Your task to perform on an android device: Show the shopping cart on target.com. Search for "bose quietcomfort 35" on target.com, select the first entry, and add it to the cart. Image 0: 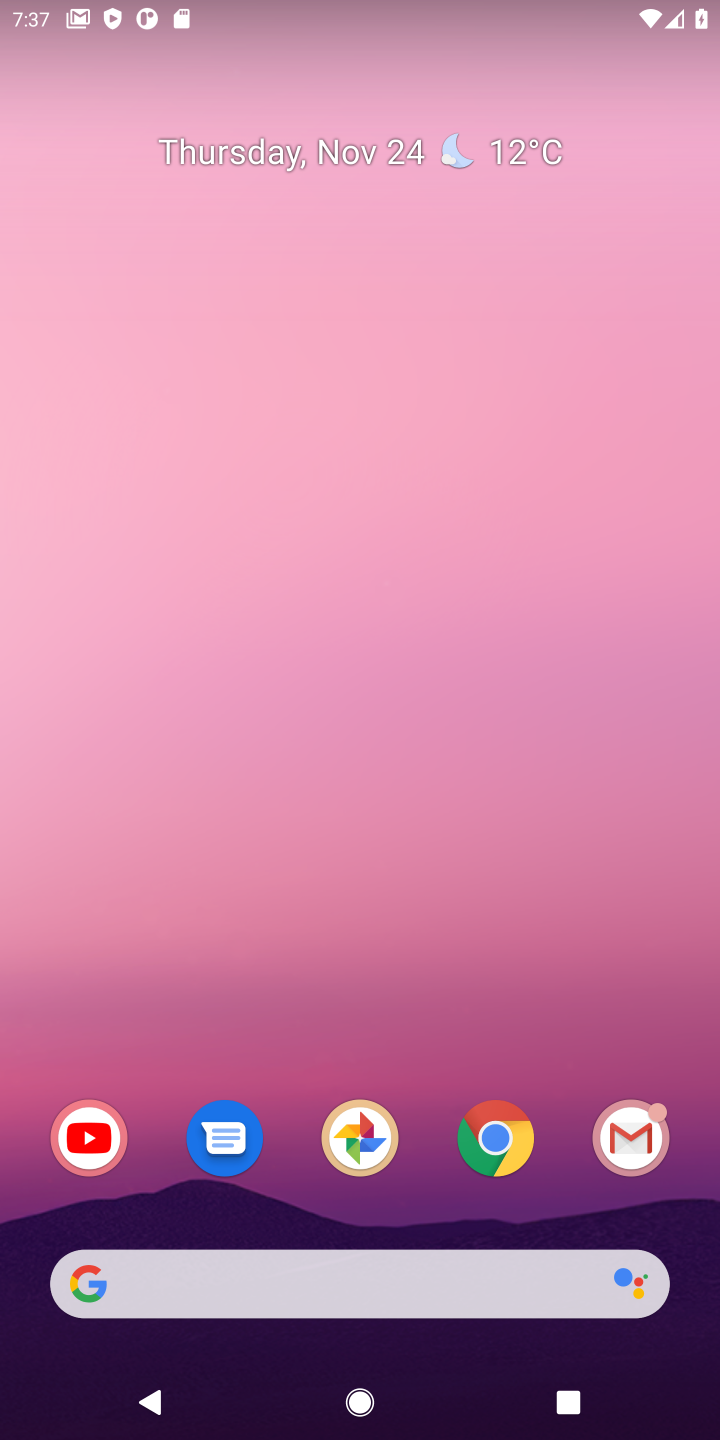
Step 0: click (462, 1123)
Your task to perform on an android device: Show the shopping cart on target.com. Search for "bose quietcomfort 35" on target.com, select the first entry, and add it to the cart. Image 1: 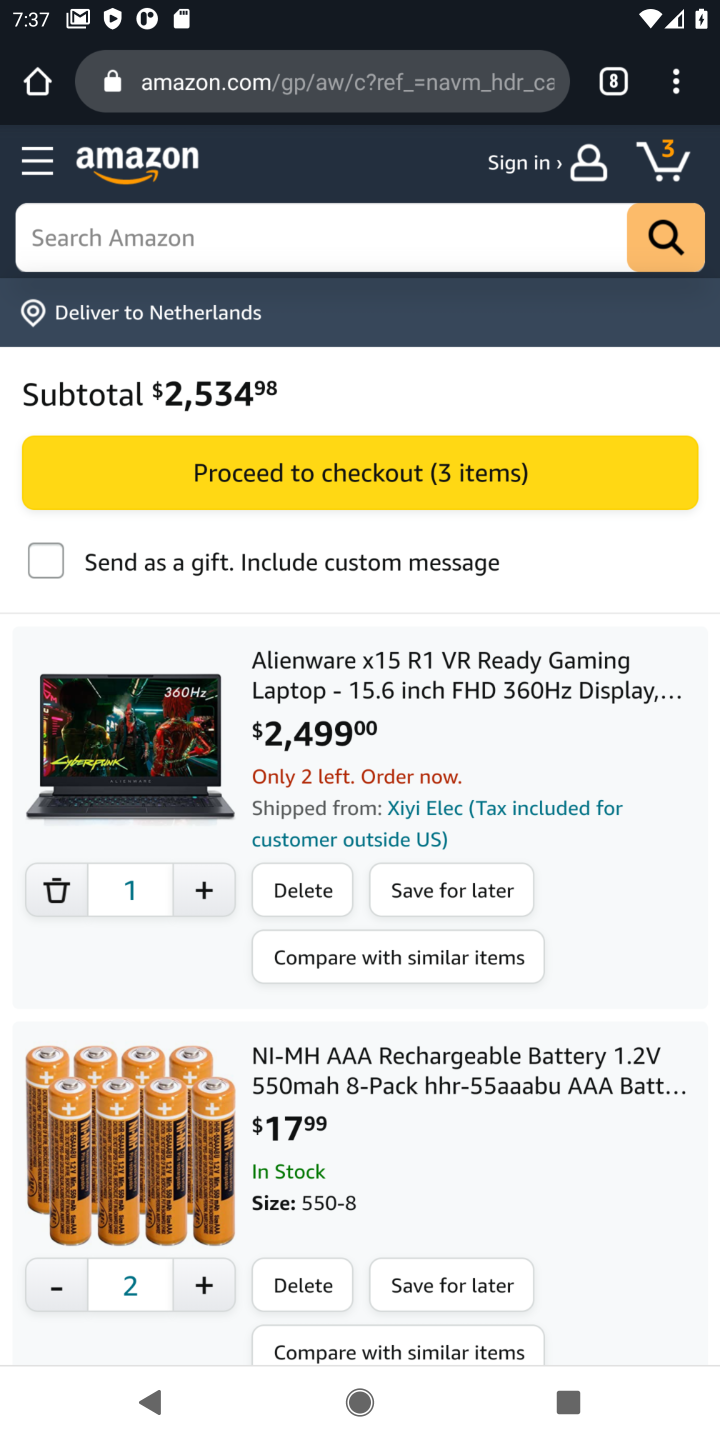
Step 1: click (495, 1145)
Your task to perform on an android device: Show the shopping cart on target.com. Search for "bose quietcomfort 35" on target.com, select the first entry, and add it to the cart. Image 2: 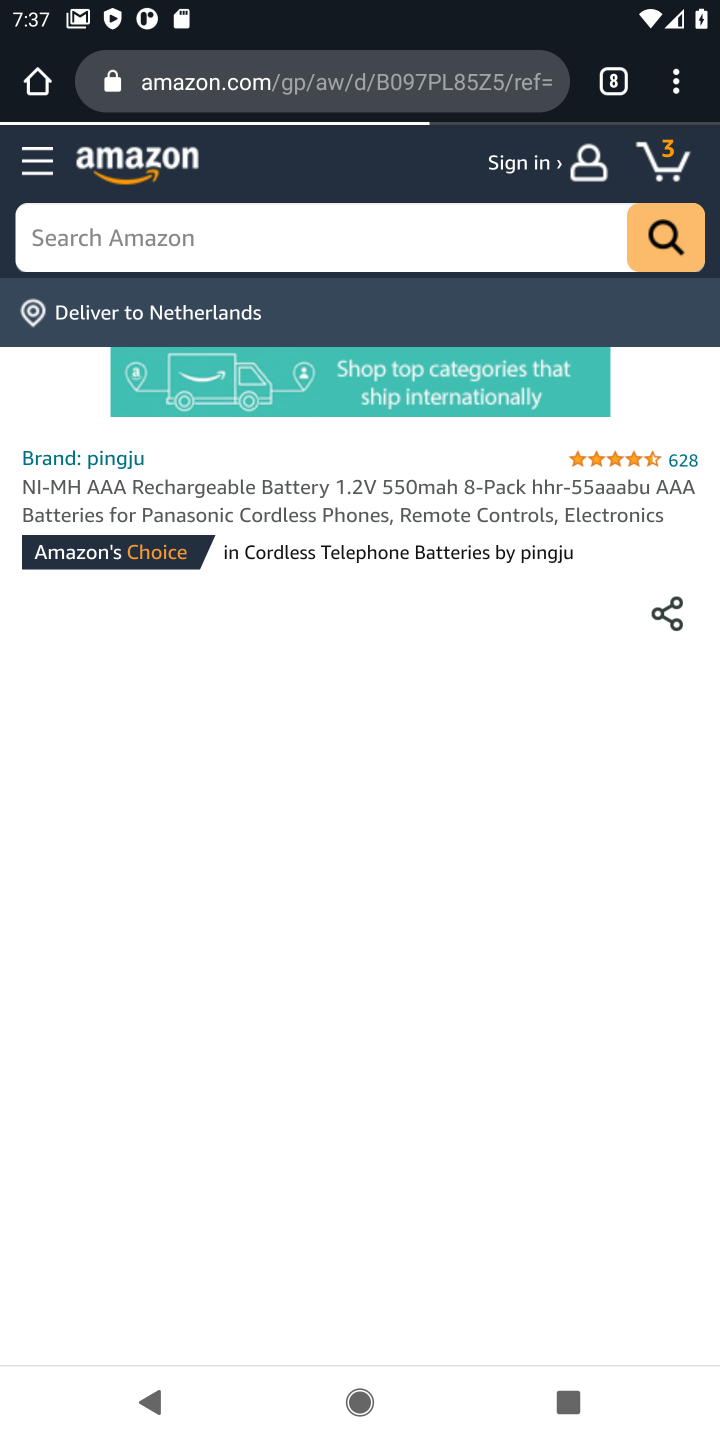
Step 2: click (628, 88)
Your task to perform on an android device: Show the shopping cart on target.com. Search for "bose quietcomfort 35" on target.com, select the first entry, and add it to the cart. Image 3: 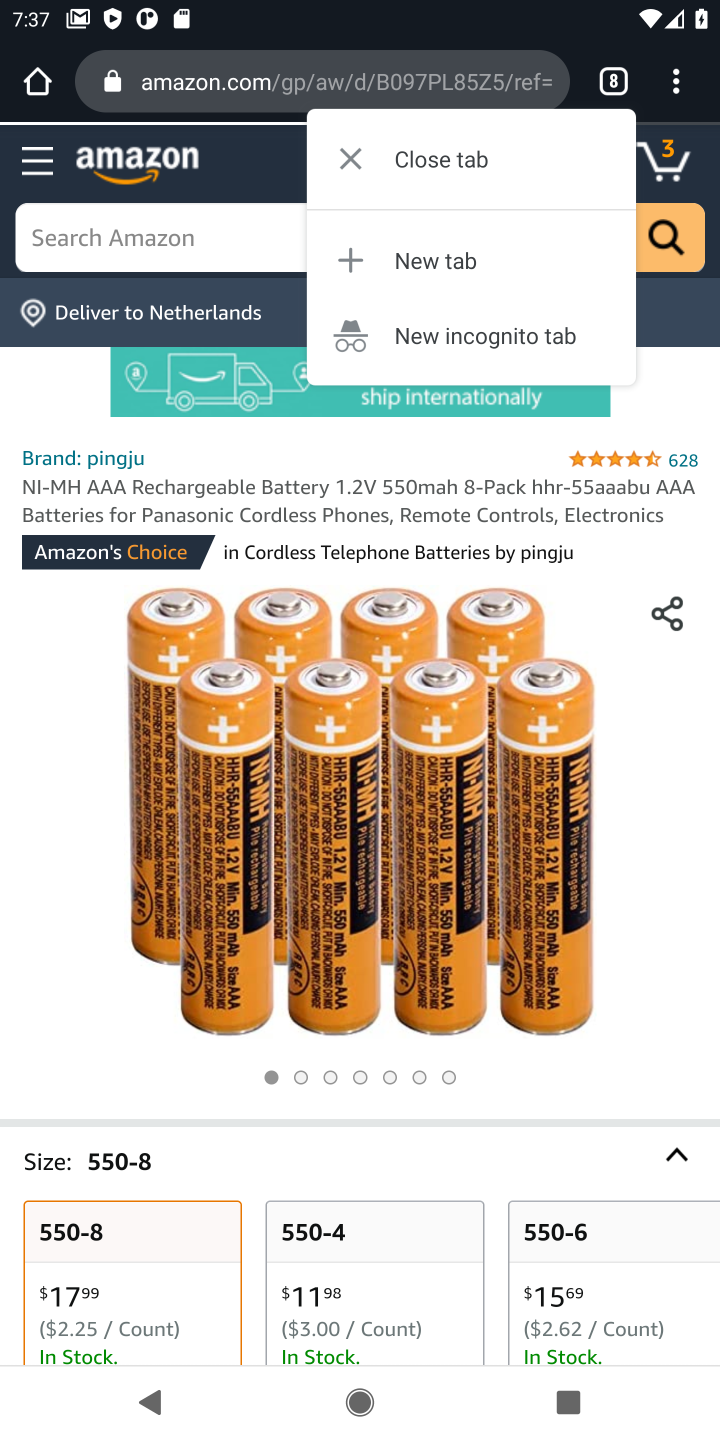
Step 3: click (609, 71)
Your task to perform on an android device: Show the shopping cart on target.com. Search for "bose quietcomfort 35" on target.com, select the first entry, and add it to the cart. Image 4: 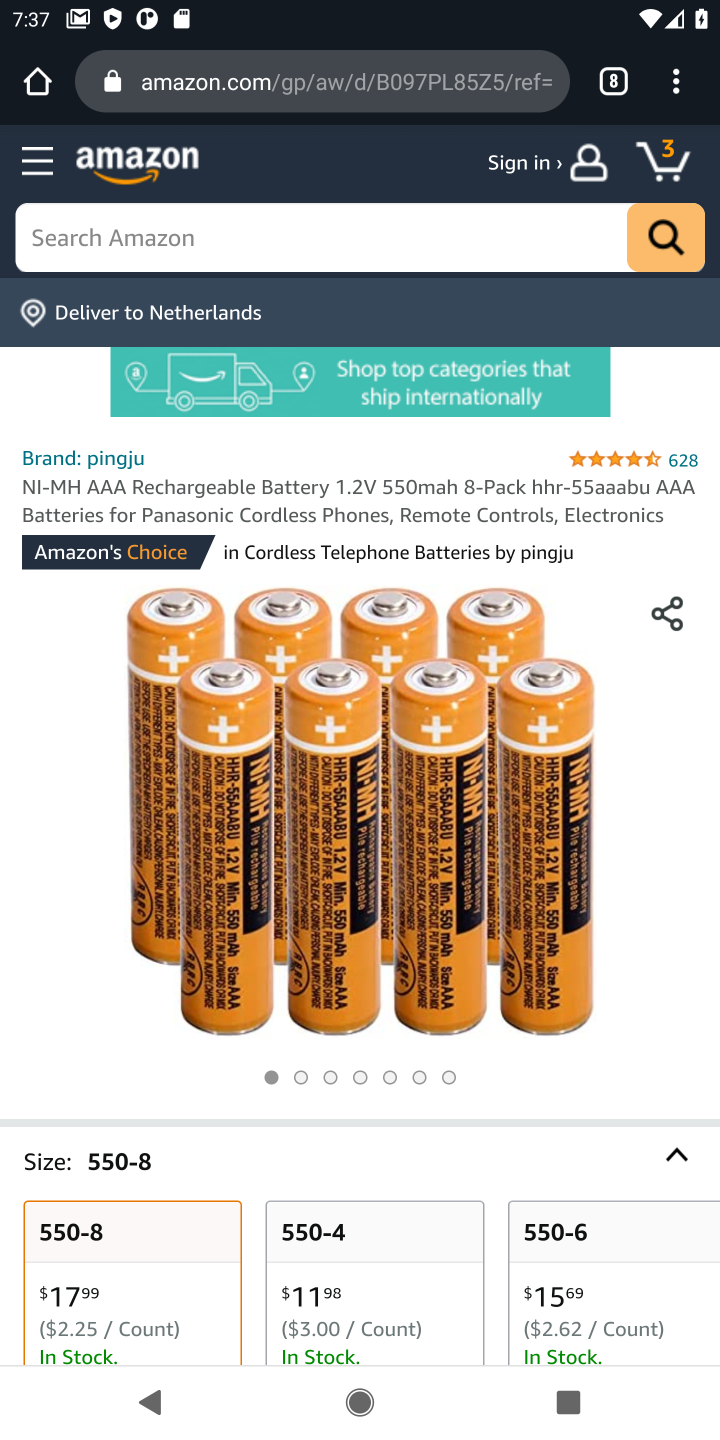
Step 4: click (609, 71)
Your task to perform on an android device: Show the shopping cart on target.com. Search for "bose quietcomfort 35" on target.com, select the first entry, and add it to the cart. Image 5: 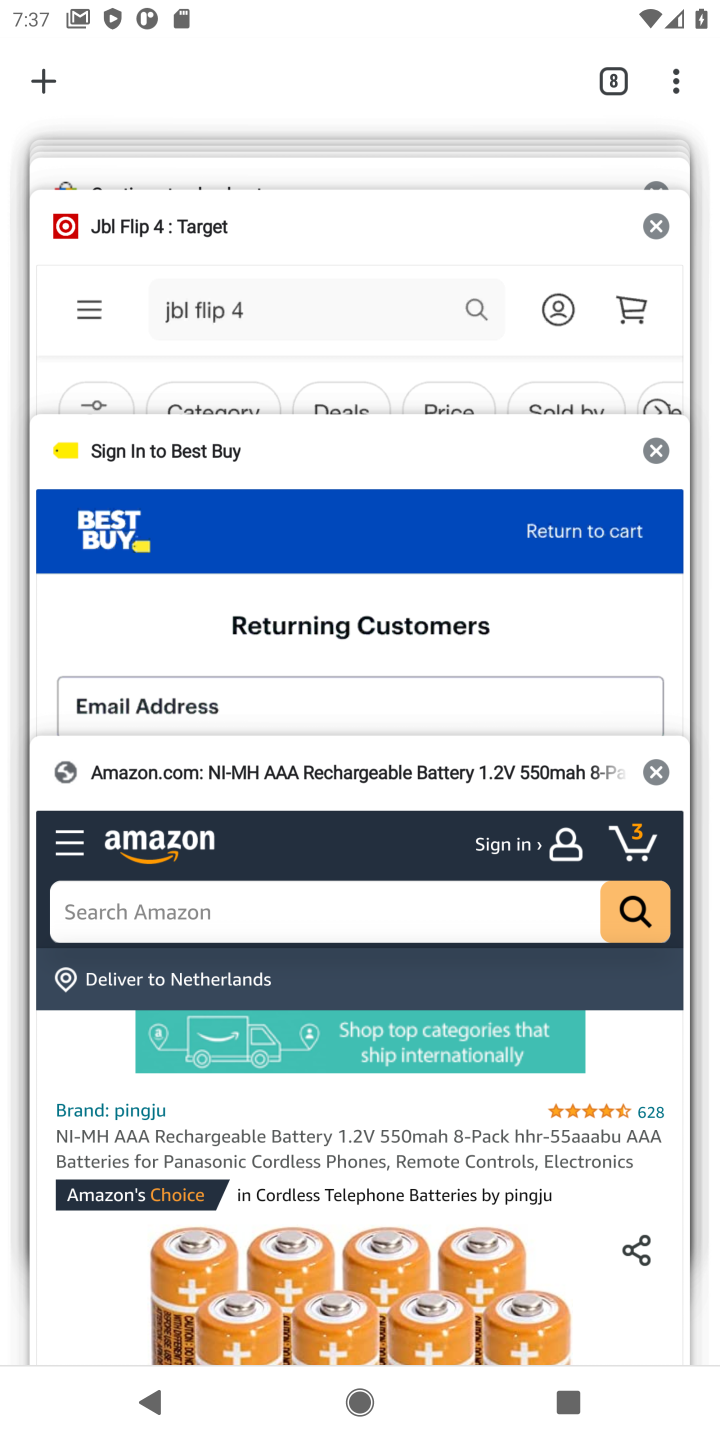
Step 5: click (32, 75)
Your task to perform on an android device: Show the shopping cart on target.com. Search for "bose quietcomfort 35" on target.com, select the first entry, and add it to the cart. Image 6: 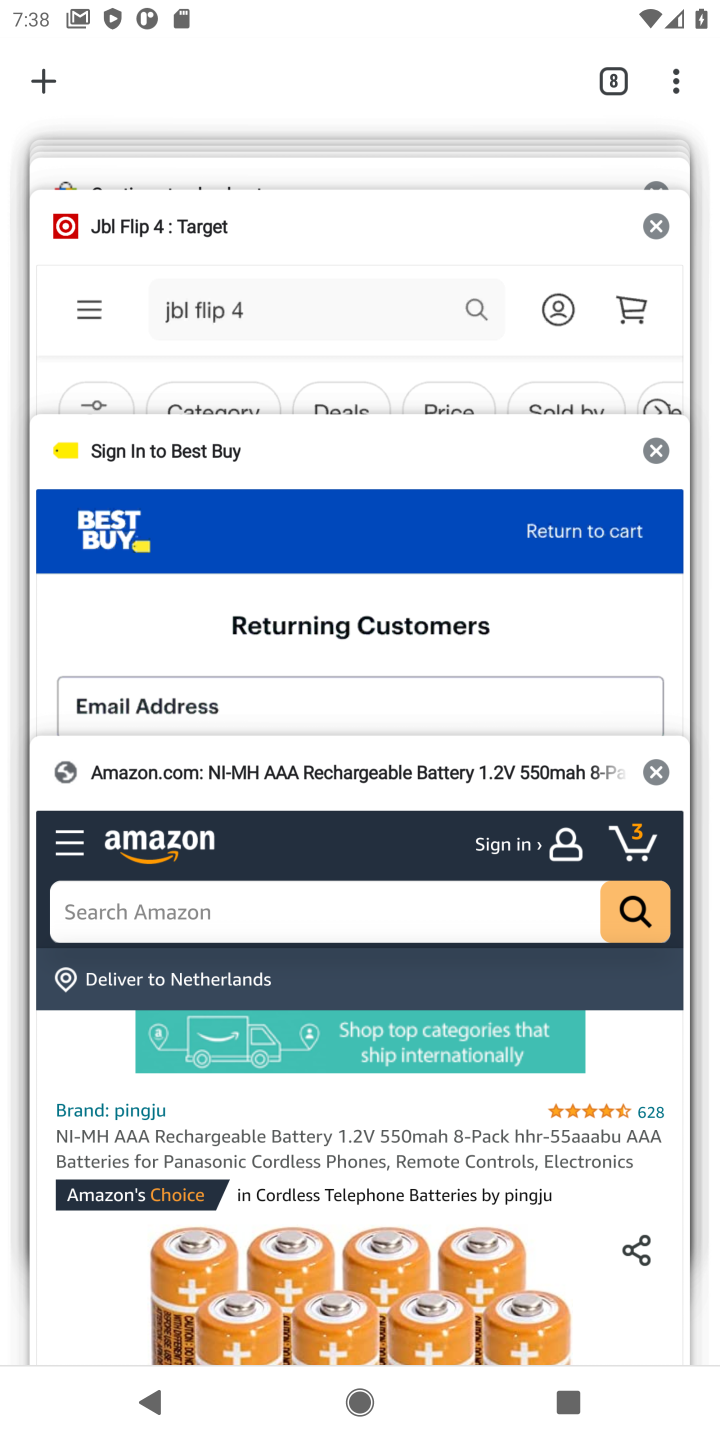
Step 6: click (352, 237)
Your task to perform on an android device: Show the shopping cart on target.com. Search for "bose quietcomfort 35" on target.com, select the first entry, and add it to the cart. Image 7: 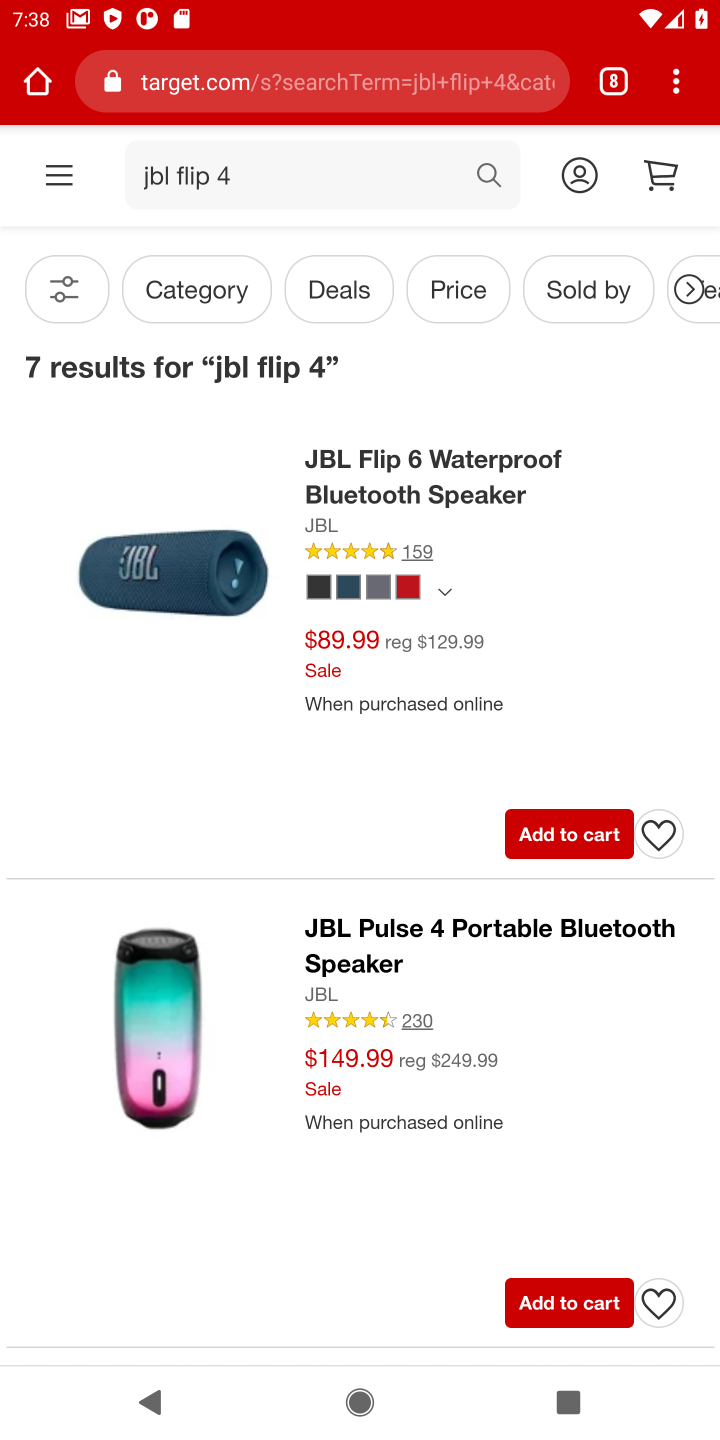
Step 7: click (361, 174)
Your task to perform on an android device: Show the shopping cart on target.com. Search for "bose quietcomfort 35" on target.com, select the first entry, and add it to the cart. Image 8: 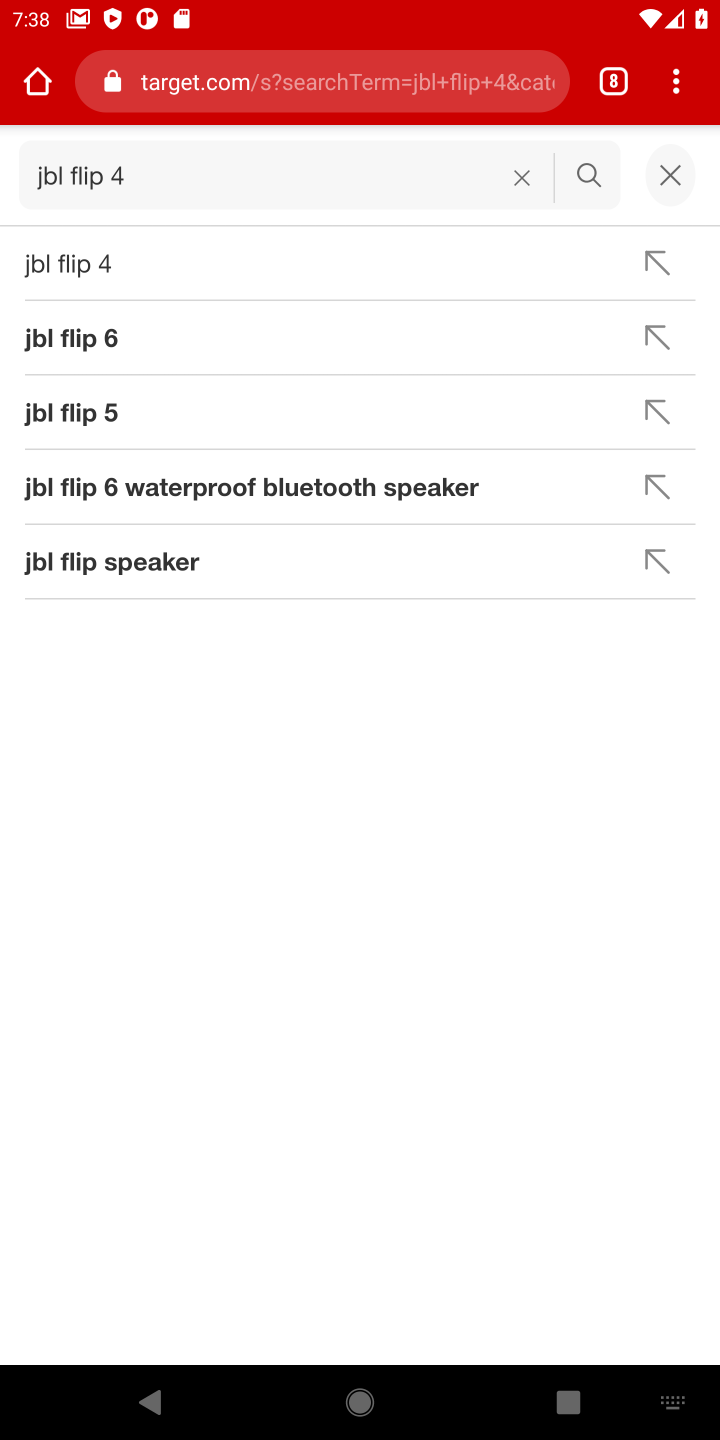
Step 8: click (513, 175)
Your task to perform on an android device: Show the shopping cart on target.com. Search for "bose quietcomfort 35" on target.com, select the first entry, and add it to the cart. Image 9: 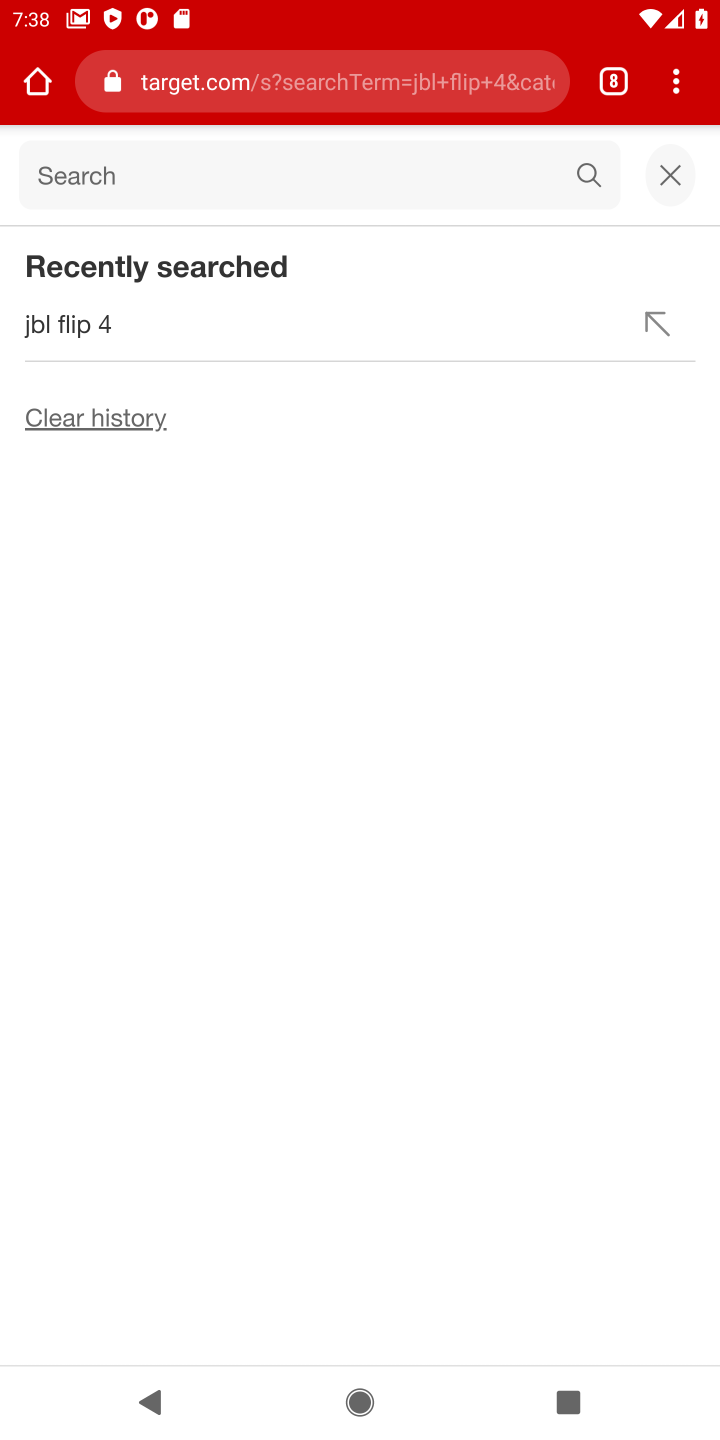
Step 9: click (246, 170)
Your task to perform on an android device: Show the shopping cart on target.com. Search for "bose quietcomfort 35" on target.com, select the first entry, and add it to the cart. Image 10: 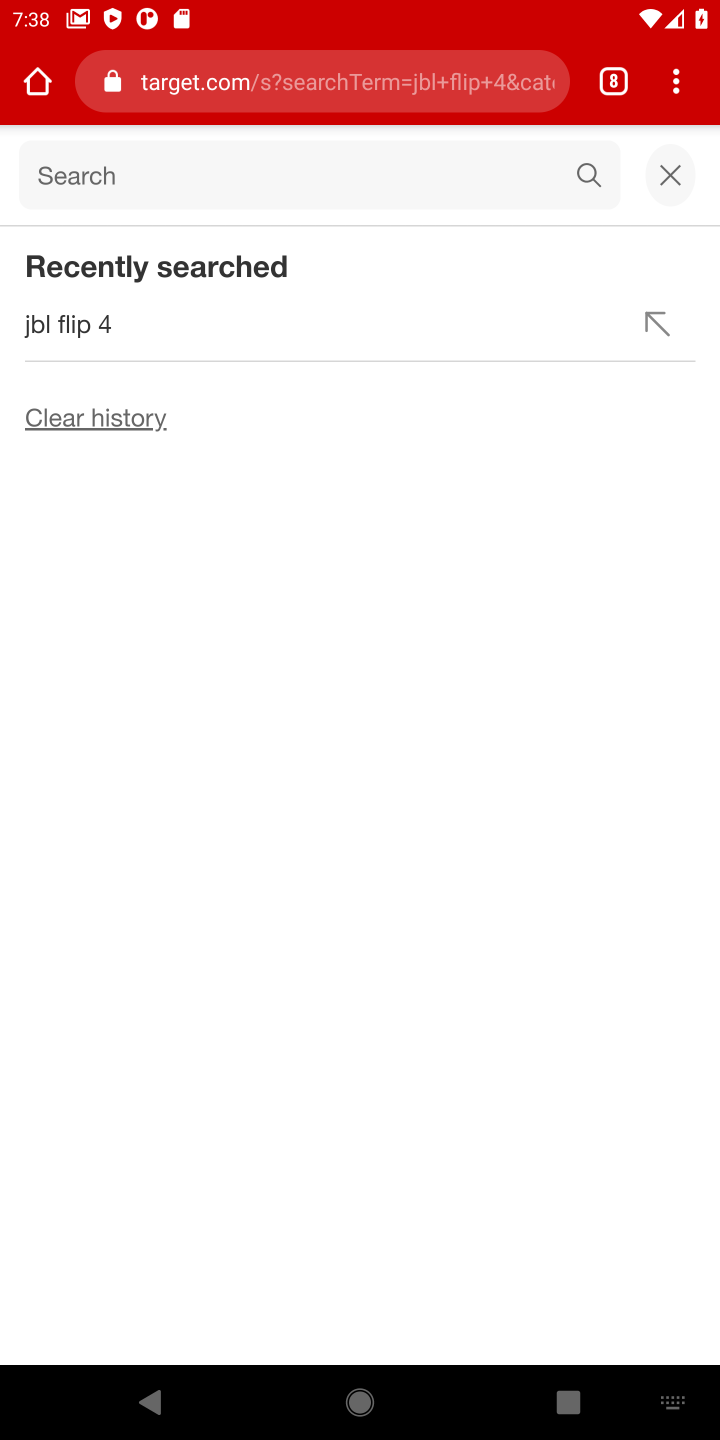
Step 10: type "bose quietcomfort 35"
Your task to perform on an android device: Show the shopping cart on target.com. Search for "bose quietcomfort 35" on target.com, select the first entry, and add it to the cart. Image 11: 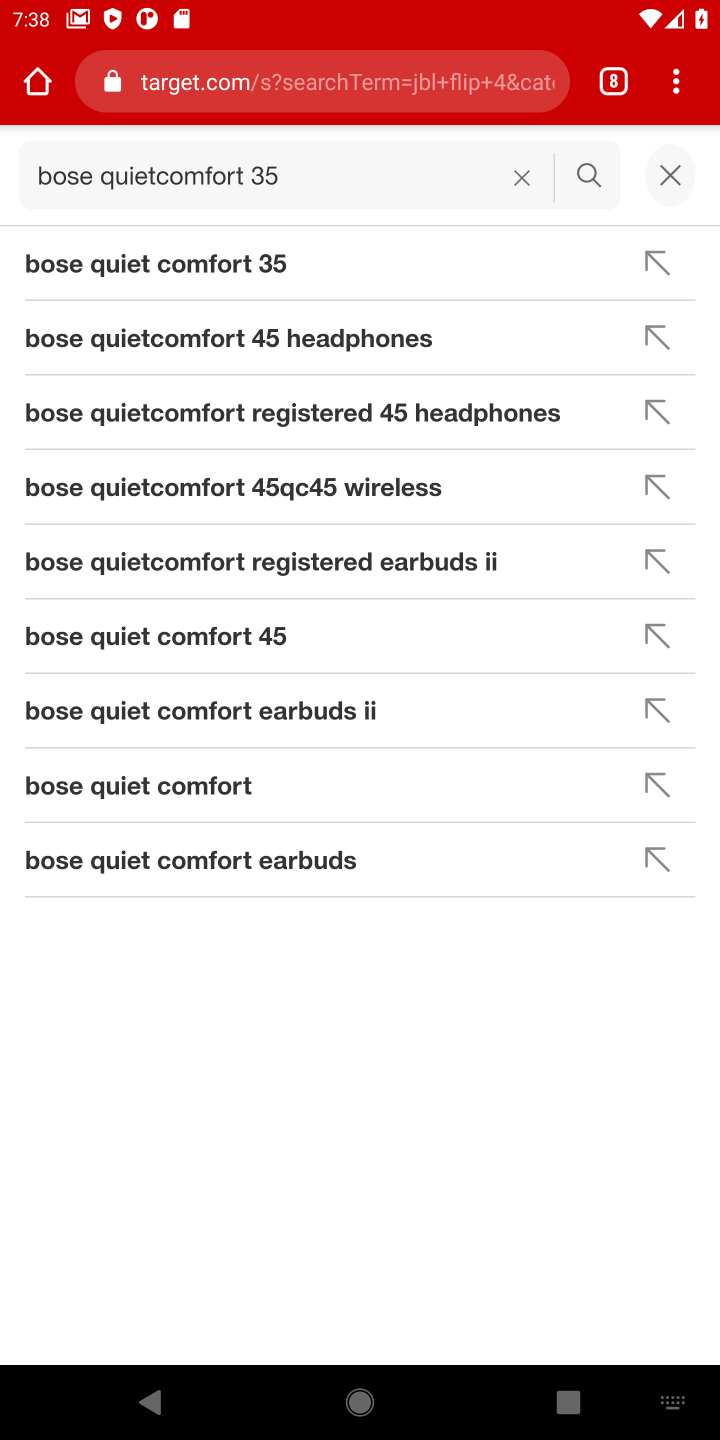
Step 11: click (208, 271)
Your task to perform on an android device: Show the shopping cart on target.com. Search for "bose quietcomfort 35" on target.com, select the first entry, and add it to the cart. Image 12: 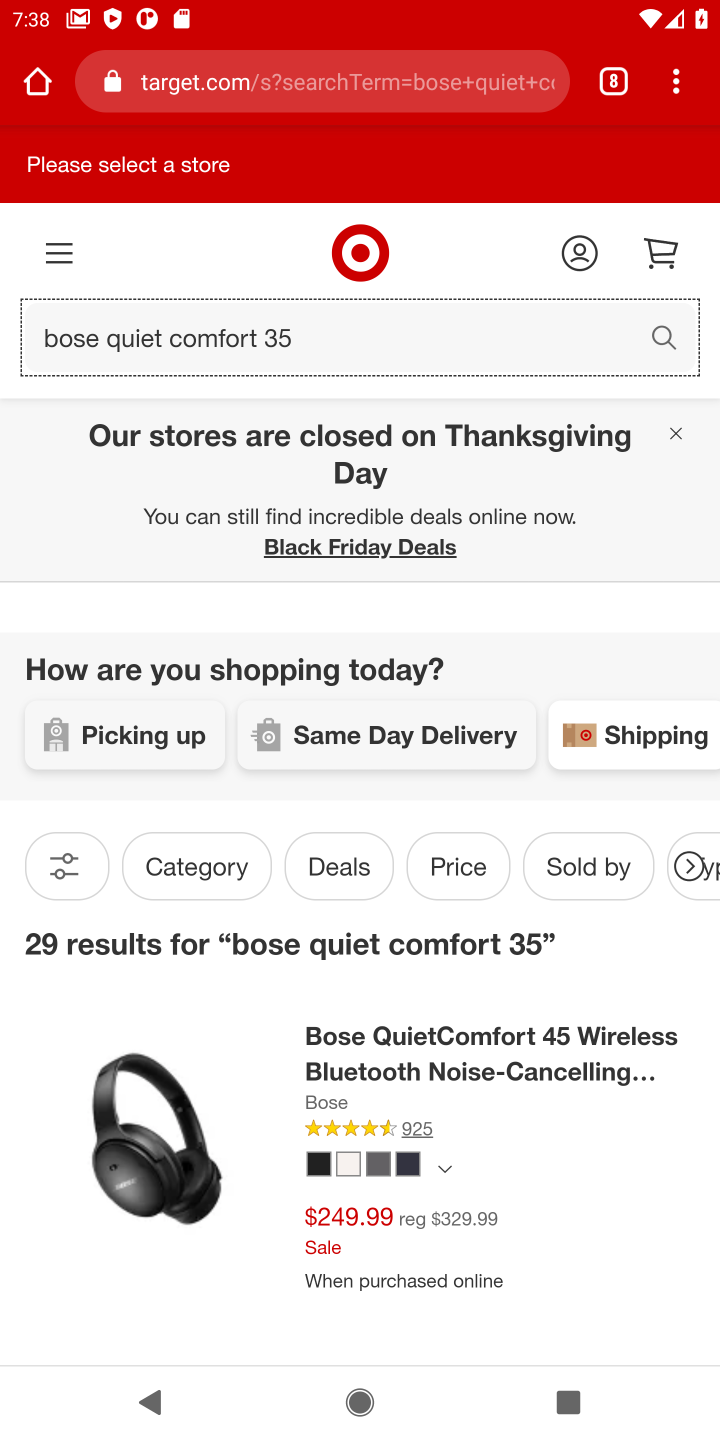
Step 12: drag from (395, 1055) to (461, 583)
Your task to perform on an android device: Show the shopping cart on target.com. Search for "bose quietcomfort 35" on target.com, select the first entry, and add it to the cart. Image 13: 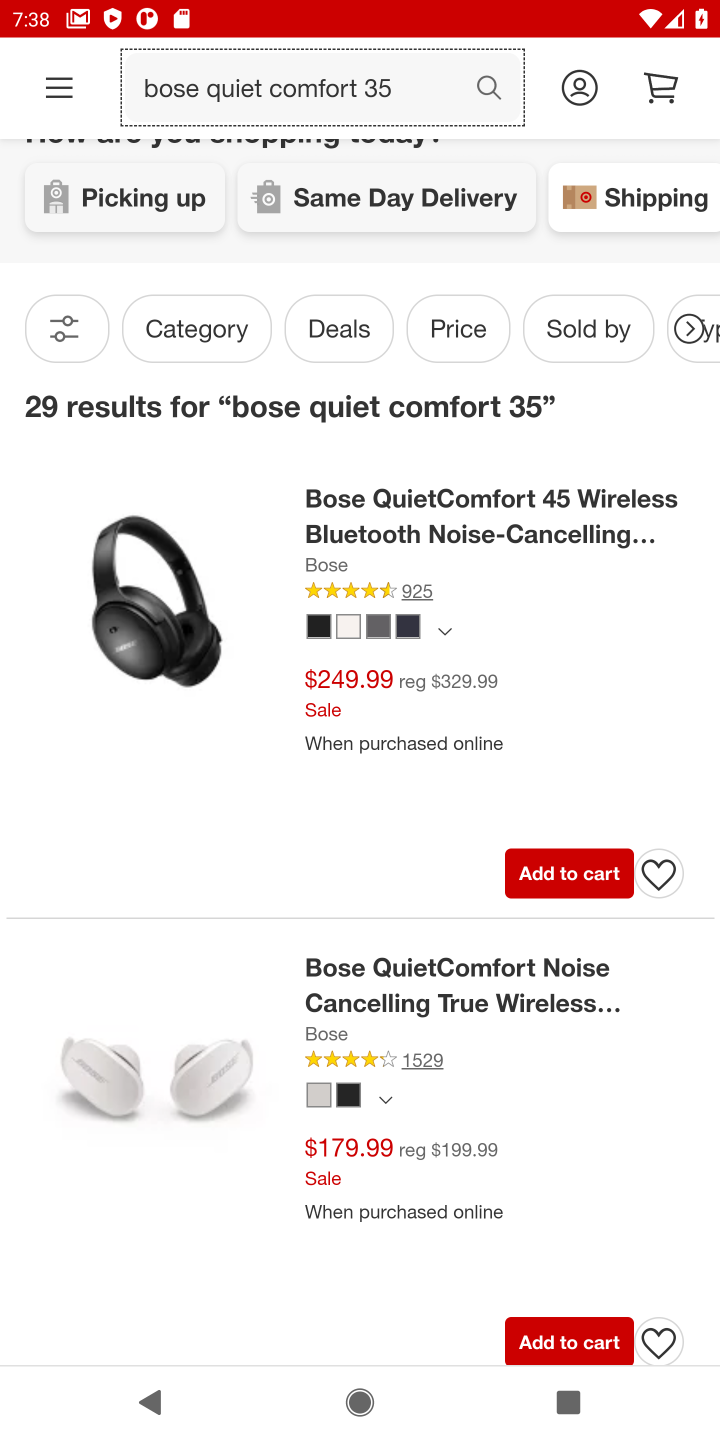
Step 13: click (448, 529)
Your task to perform on an android device: Show the shopping cart on target.com. Search for "bose quietcomfort 35" on target.com, select the first entry, and add it to the cart. Image 14: 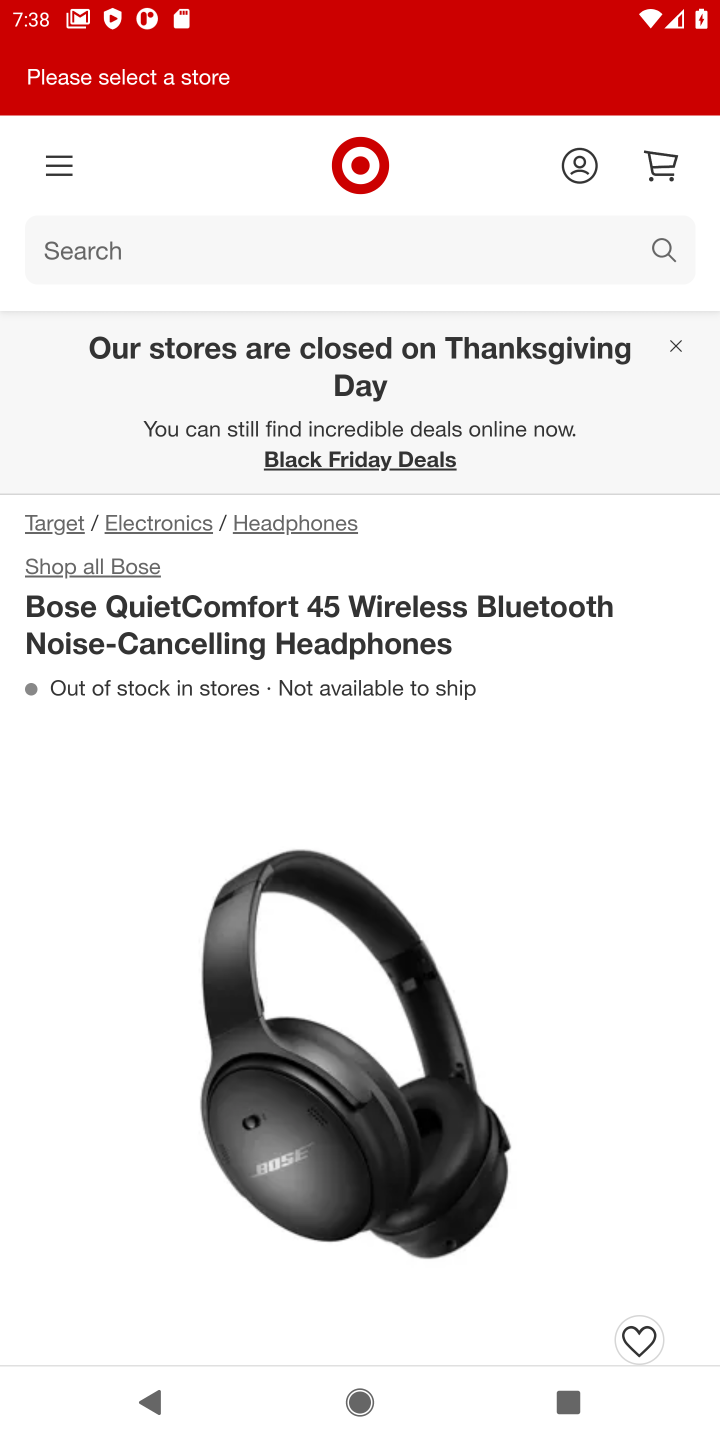
Step 14: task complete